Your task to perform on an android device: Go to internet settings Image 0: 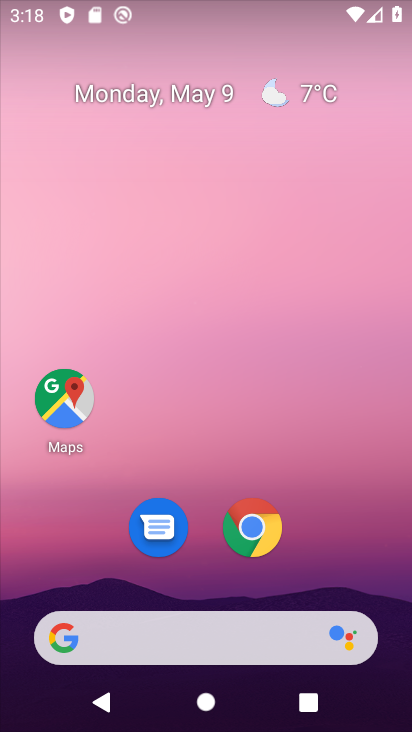
Step 0: drag from (370, 514) to (244, 98)
Your task to perform on an android device: Go to internet settings Image 1: 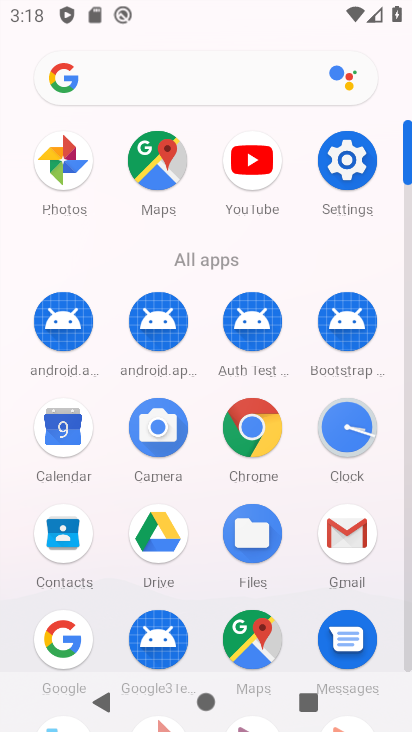
Step 1: click (341, 166)
Your task to perform on an android device: Go to internet settings Image 2: 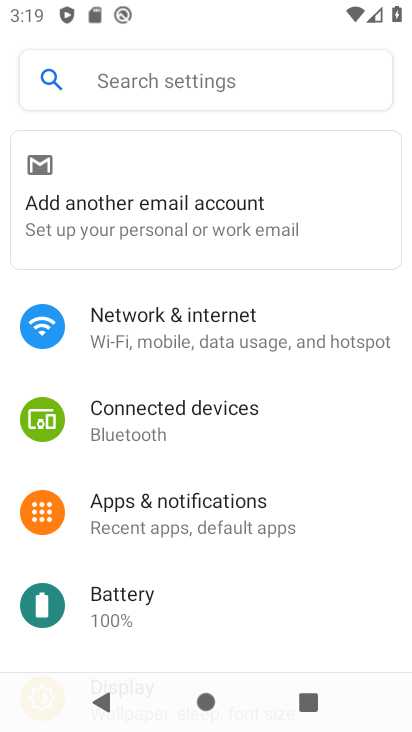
Step 2: click (262, 328)
Your task to perform on an android device: Go to internet settings Image 3: 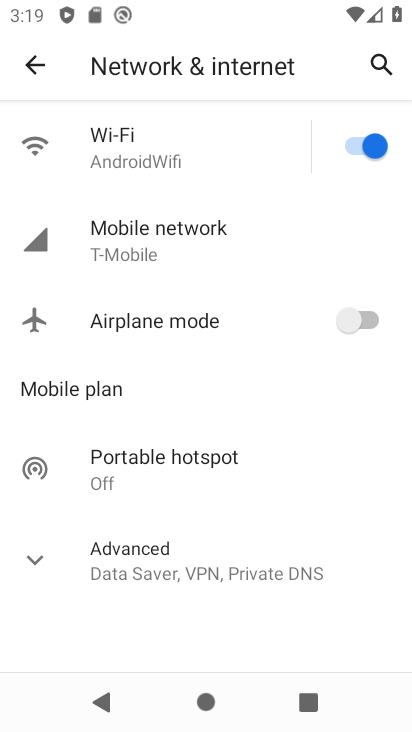
Step 3: drag from (240, 497) to (220, 274)
Your task to perform on an android device: Go to internet settings Image 4: 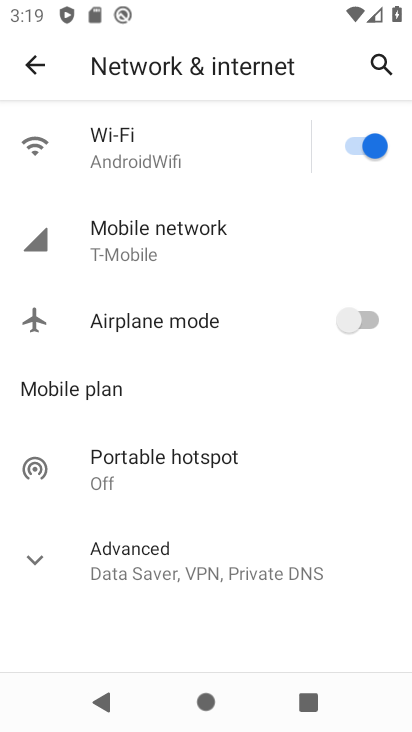
Step 4: click (225, 231)
Your task to perform on an android device: Go to internet settings Image 5: 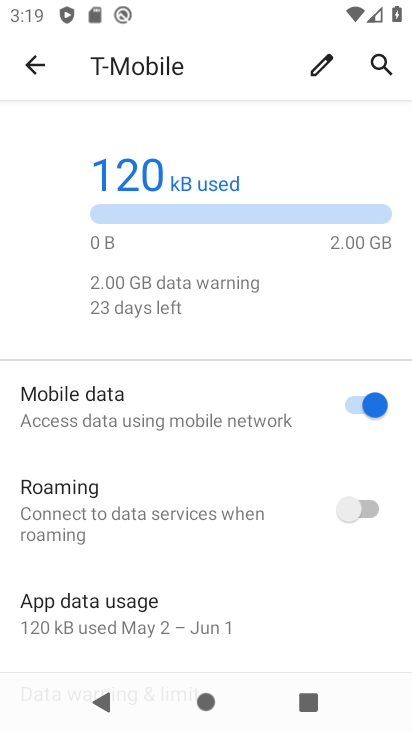
Step 5: task complete